Your task to perform on an android device: What's the weather going to be this weekend? Image 0: 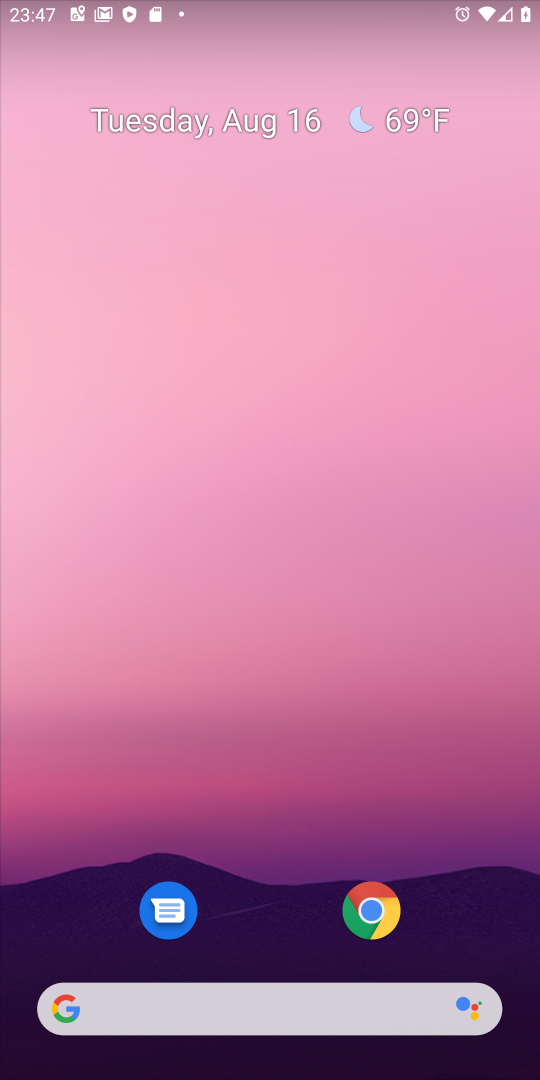
Step 0: click (440, 128)
Your task to perform on an android device: What's the weather going to be this weekend? Image 1: 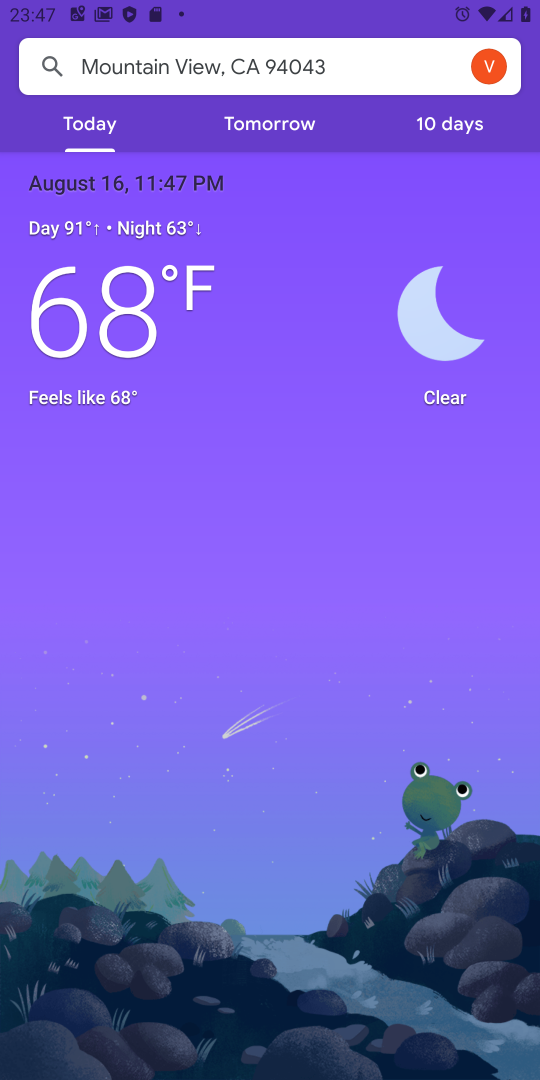
Step 1: click (469, 119)
Your task to perform on an android device: What's the weather going to be this weekend? Image 2: 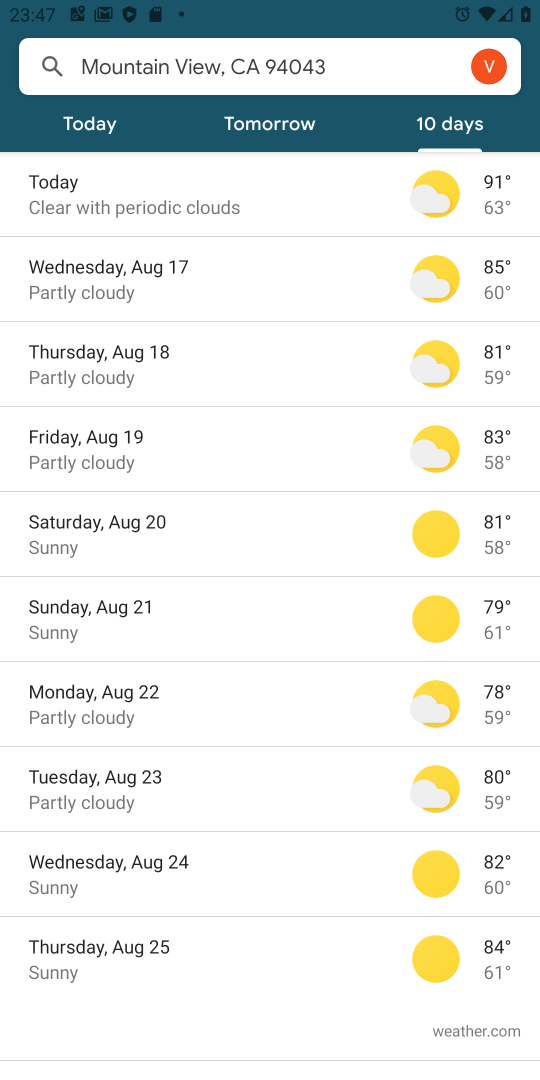
Step 2: click (112, 528)
Your task to perform on an android device: What's the weather going to be this weekend? Image 3: 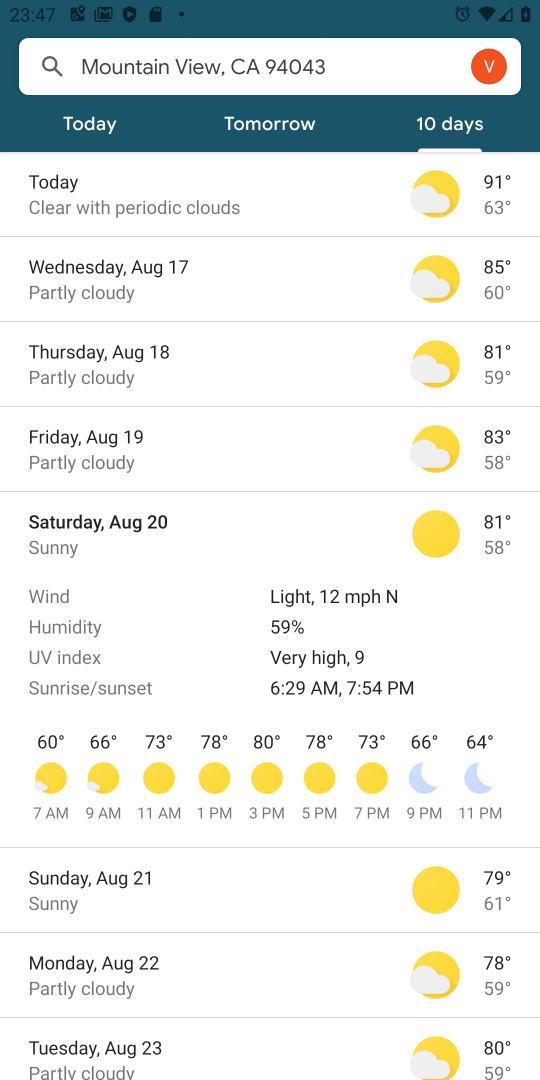
Step 3: task complete